Your task to perform on an android device: check data usage Image 0: 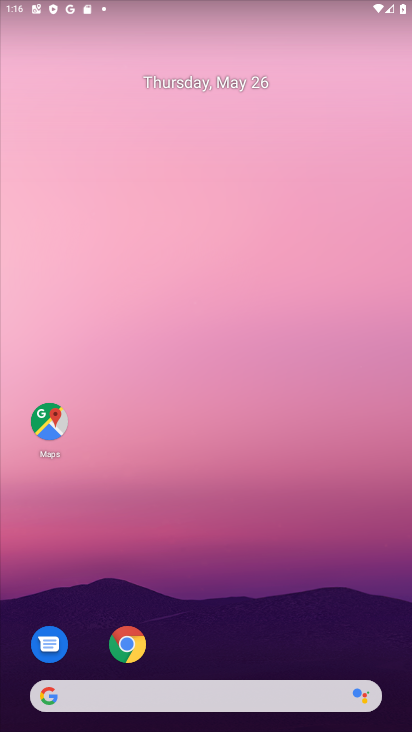
Step 0: click (267, 362)
Your task to perform on an android device: check data usage Image 1: 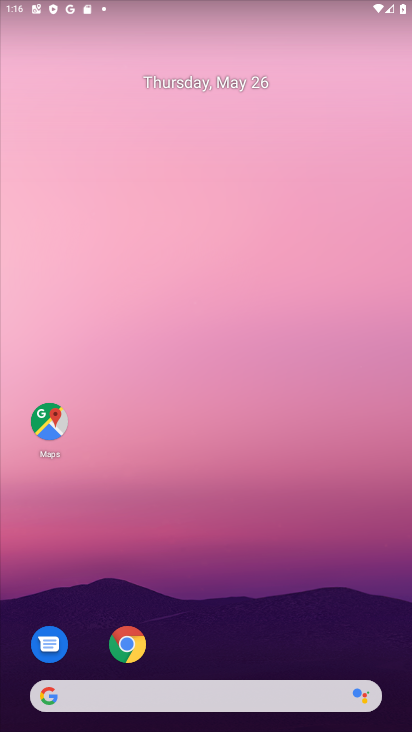
Step 1: drag from (206, 608) to (228, 252)
Your task to perform on an android device: check data usage Image 2: 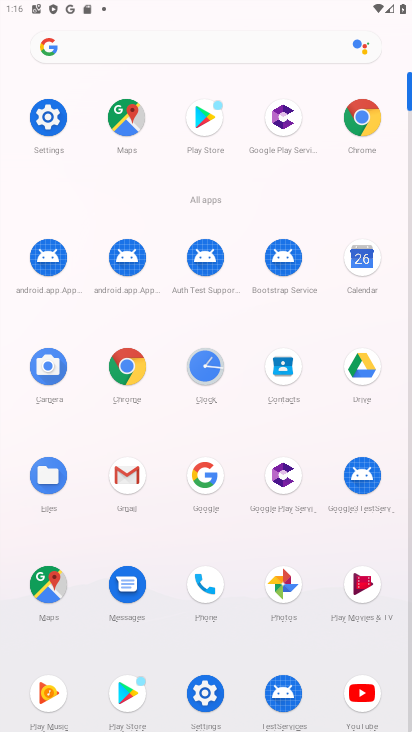
Step 2: click (194, 686)
Your task to perform on an android device: check data usage Image 3: 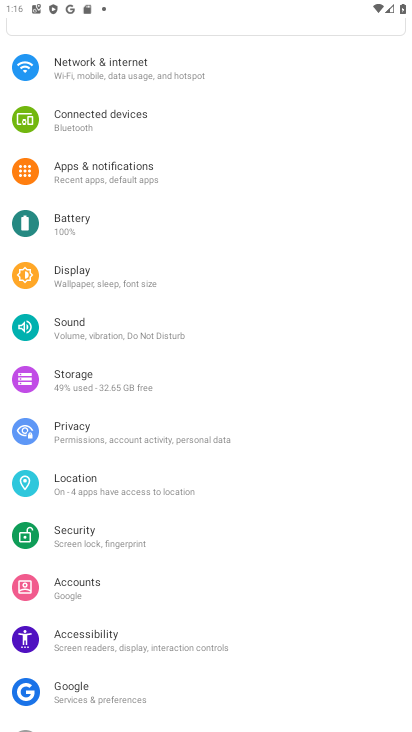
Step 3: click (135, 64)
Your task to perform on an android device: check data usage Image 4: 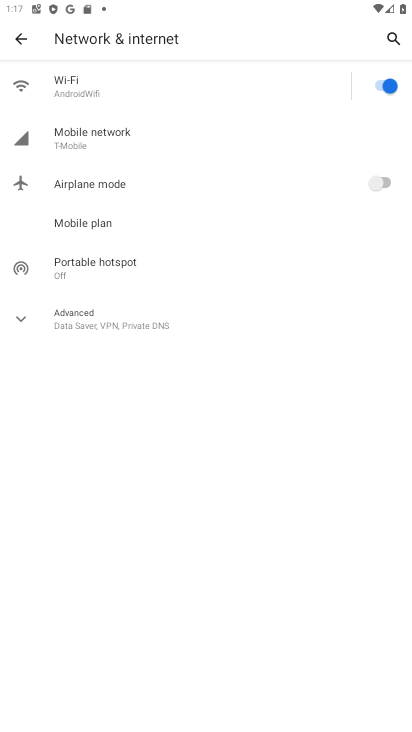
Step 4: click (109, 134)
Your task to perform on an android device: check data usage Image 5: 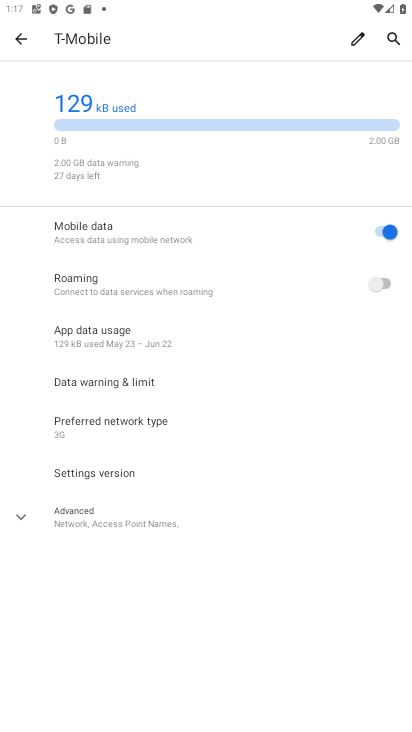
Step 5: task complete